Your task to perform on an android device: open app "Adobe Acrobat Reader" Image 0: 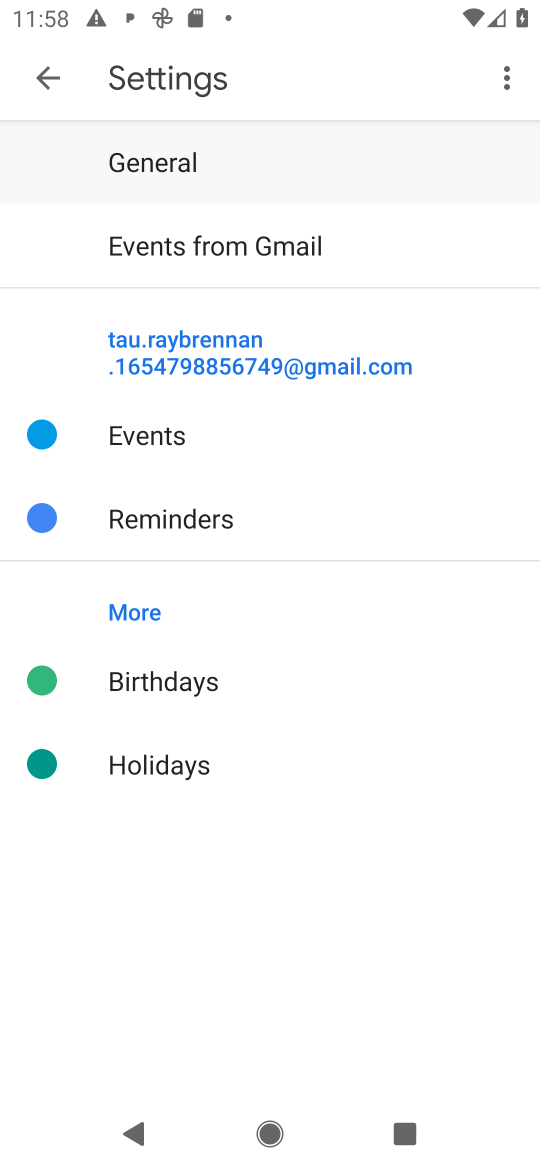
Step 0: press home button
Your task to perform on an android device: open app "Adobe Acrobat Reader" Image 1: 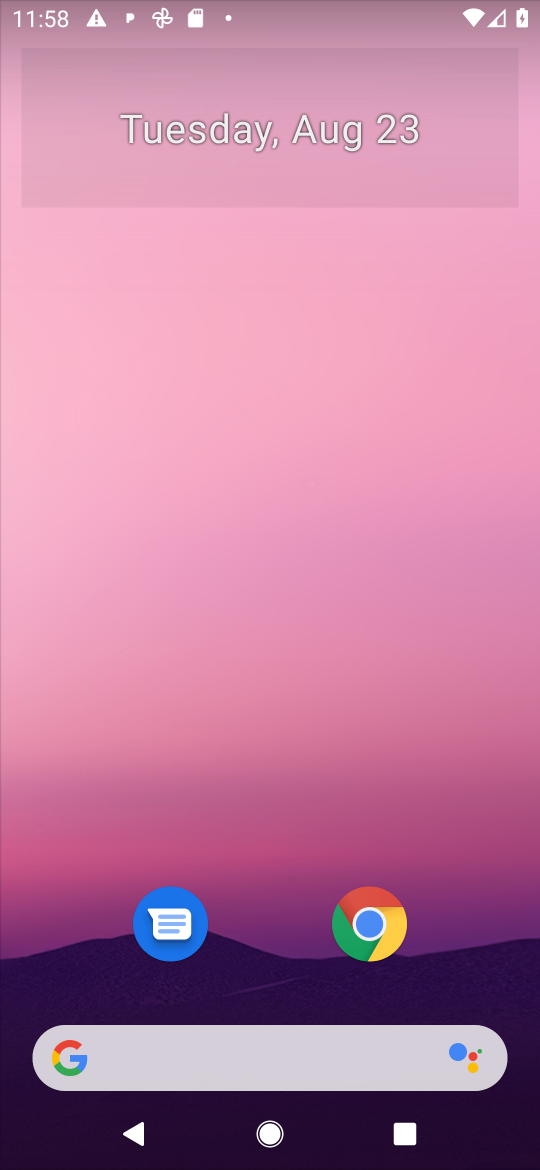
Step 1: drag from (490, 960) to (482, 138)
Your task to perform on an android device: open app "Adobe Acrobat Reader" Image 2: 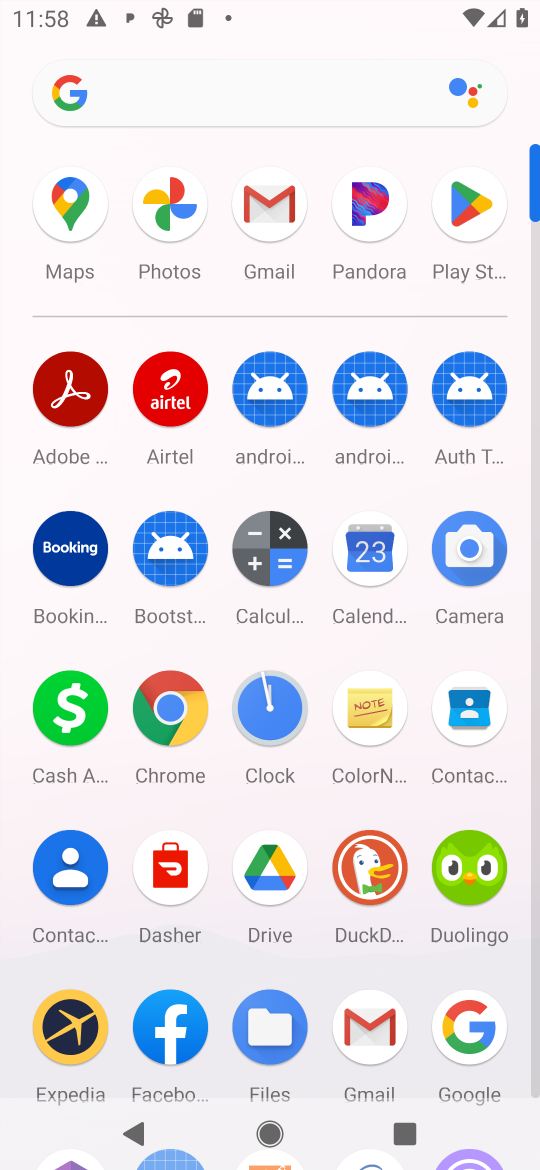
Step 2: click (464, 215)
Your task to perform on an android device: open app "Adobe Acrobat Reader" Image 3: 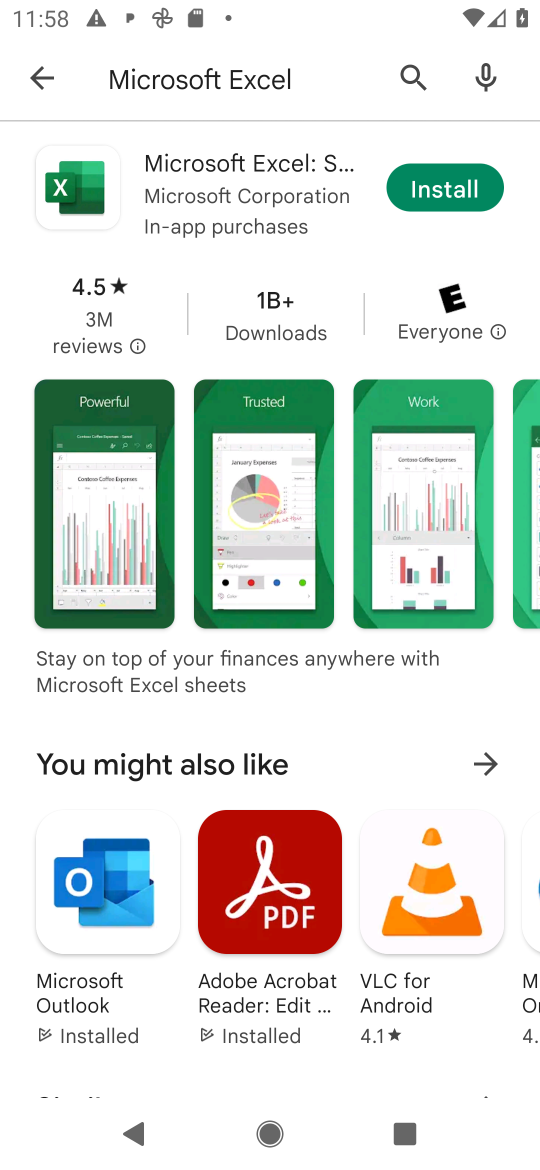
Step 3: press back button
Your task to perform on an android device: open app "Adobe Acrobat Reader" Image 4: 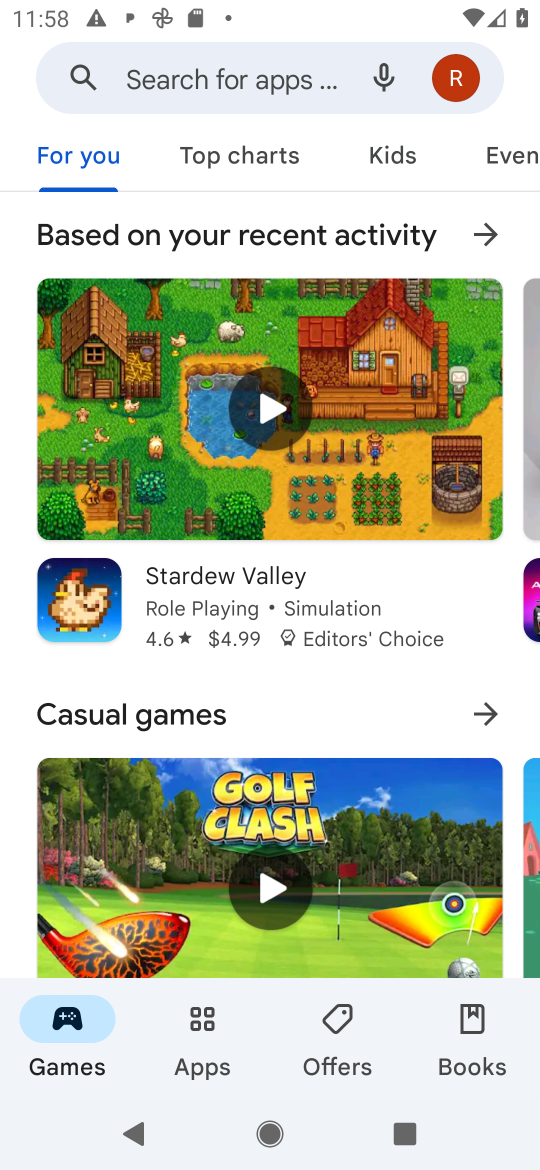
Step 4: click (243, 77)
Your task to perform on an android device: open app "Adobe Acrobat Reader" Image 5: 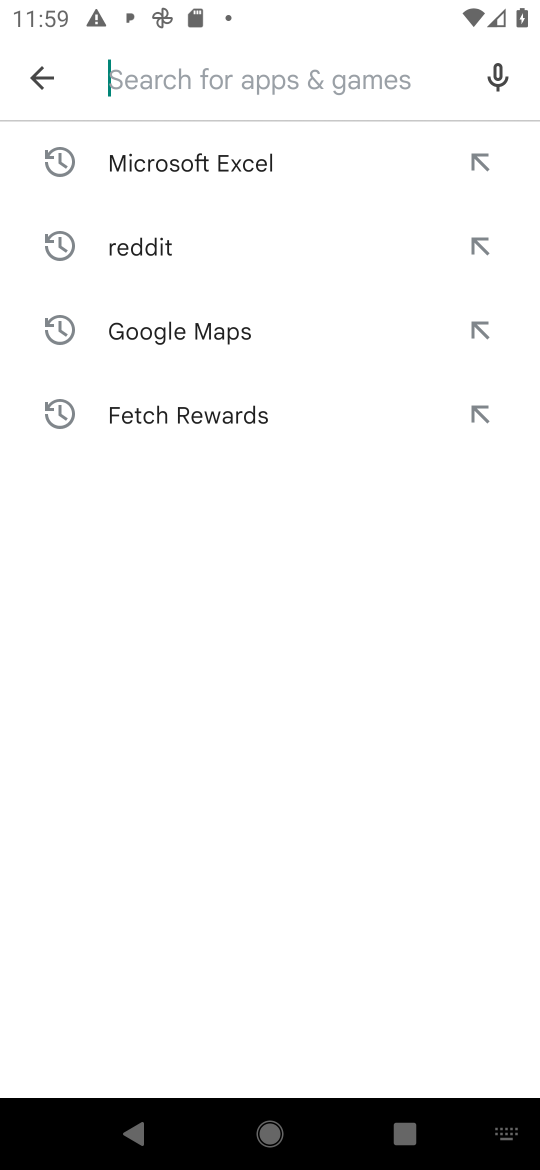
Step 5: press enter
Your task to perform on an android device: open app "Adobe Acrobat Reader" Image 6: 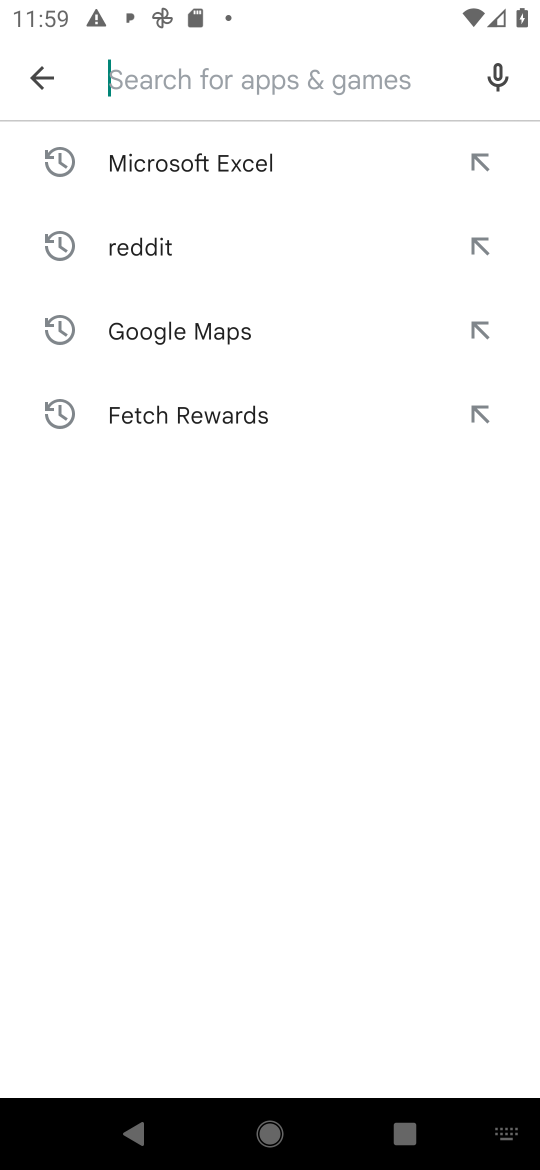
Step 6: type "Adobe Acrobat Reader"
Your task to perform on an android device: open app "Adobe Acrobat Reader" Image 7: 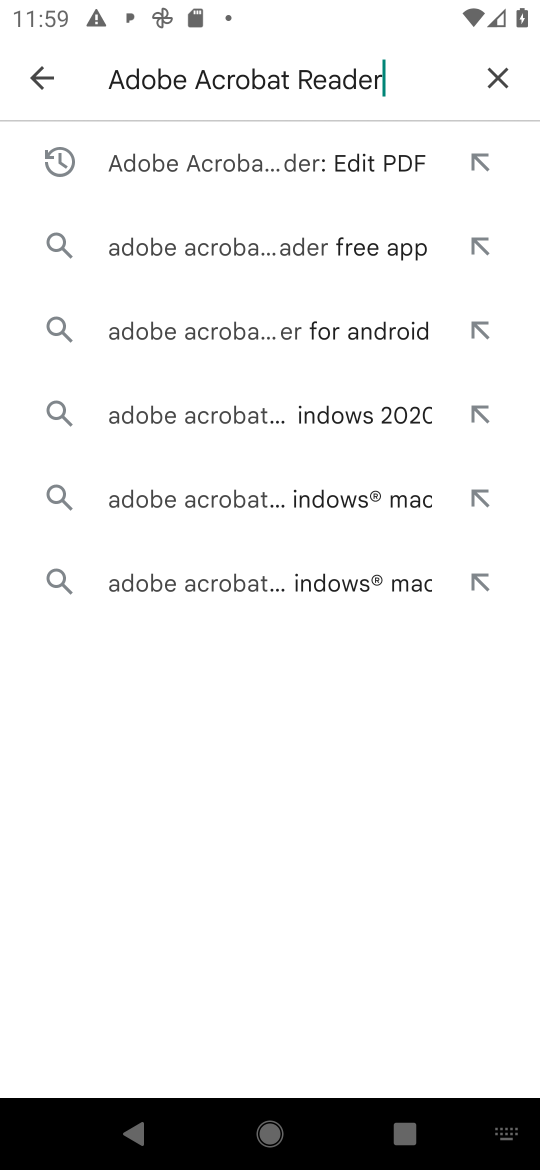
Step 7: click (377, 152)
Your task to perform on an android device: open app "Adobe Acrobat Reader" Image 8: 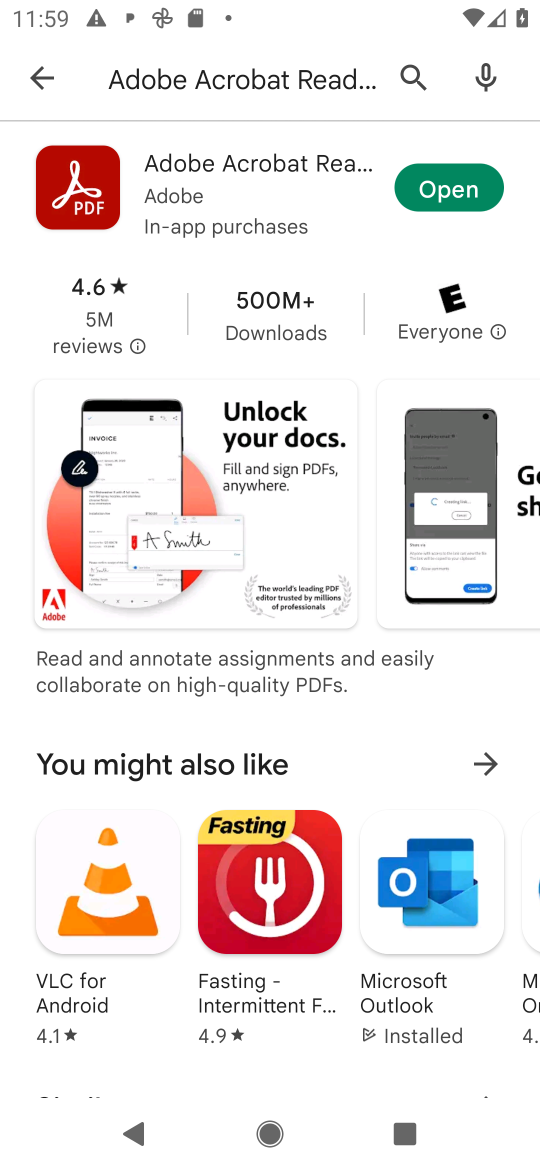
Step 8: click (450, 191)
Your task to perform on an android device: open app "Adobe Acrobat Reader" Image 9: 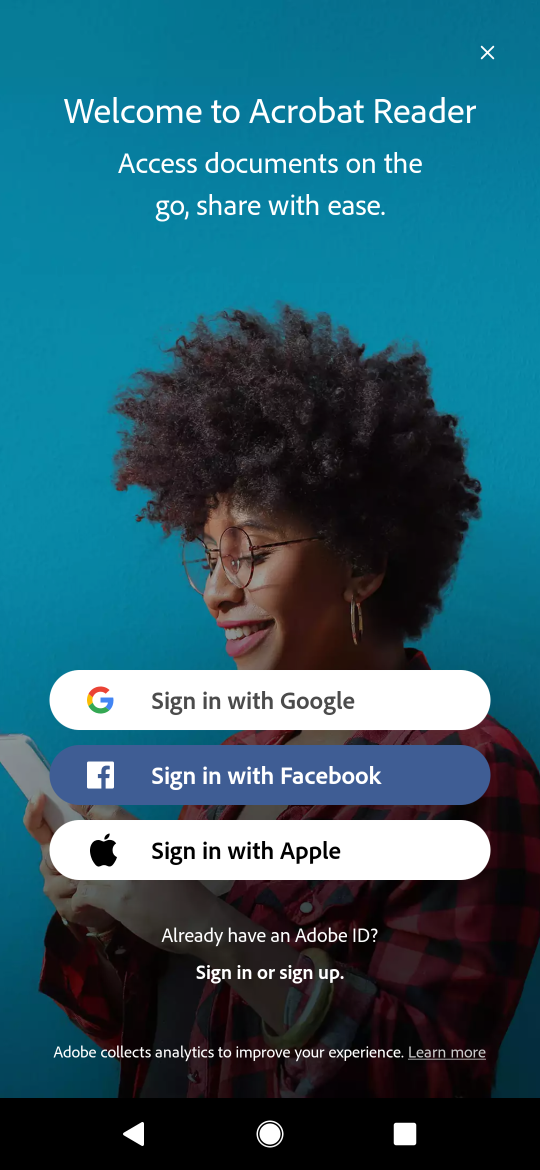
Step 9: task complete